Your task to perform on an android device: Go to Google maps Image 0: 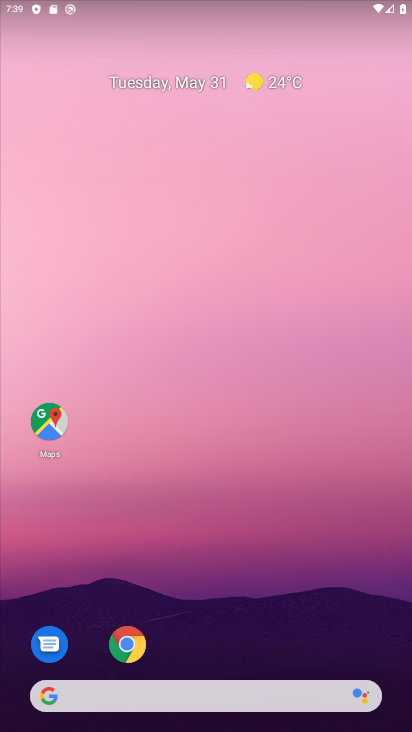
Step 0: click (40, 417)
Your task to perform on an android device: Go to Google maps Image 1: 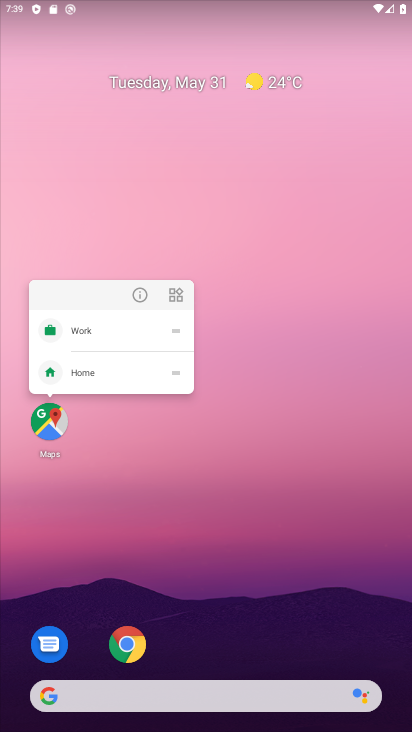
Step 1: click (50, 417)
Your task to perform on an android device: Go to Google maps Image 2: 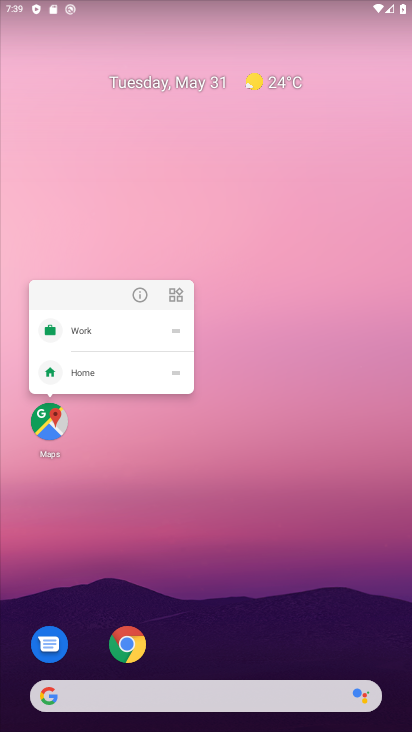
Step 2: click (48, 419)
Your task to perform on an android device: Go to Google maps Image 3: 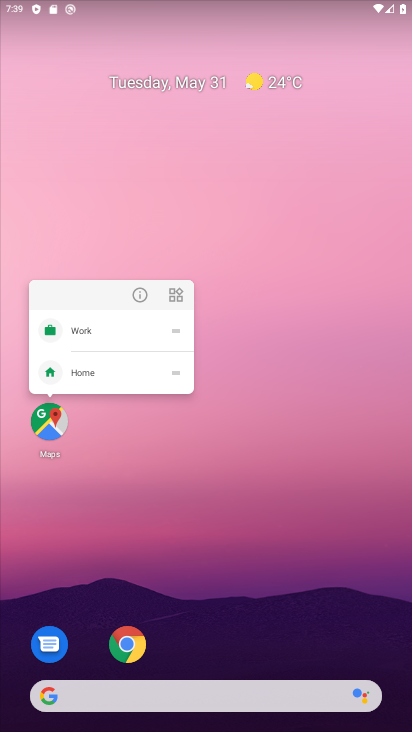
Step 3: click (39, 417)
Your task to perform on an android device: Go to Google maps Image 4: 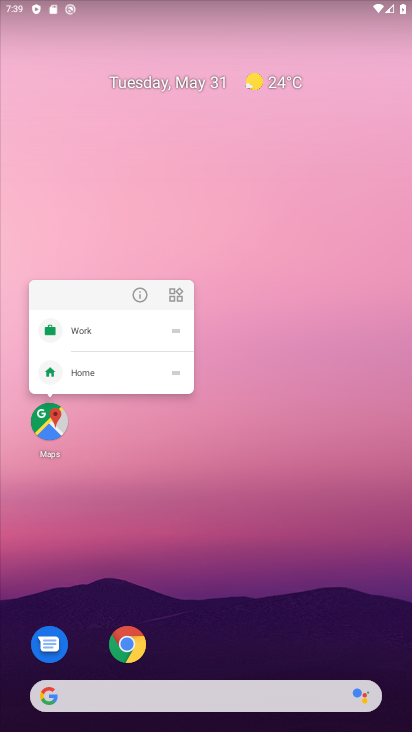
Step 4: click (50, 425)
Your task to perform on an android device: Go to Google maps Image 5: 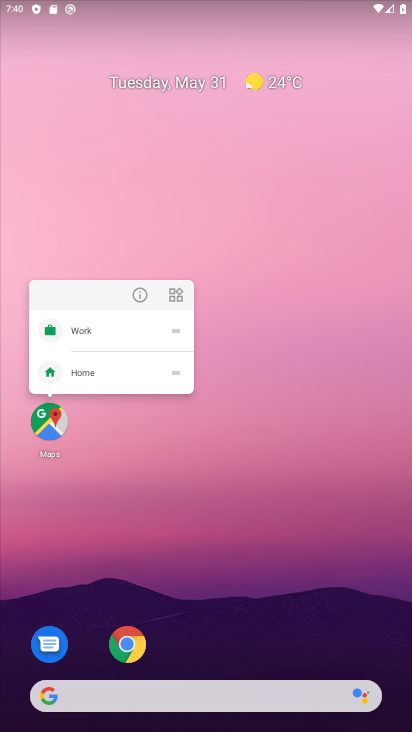
Step 5: click (36, 426)
Your task to perform on an android device: Go to Google maps Image 6: 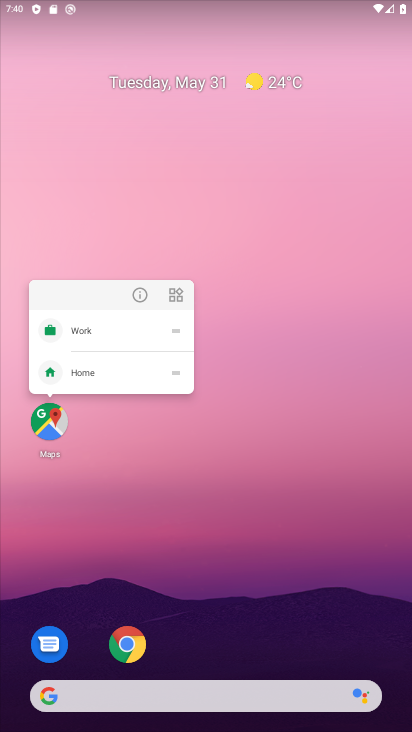
Step 6: click (146, 289)
Your task to perform on an android device: Go to Google maps Image 7: 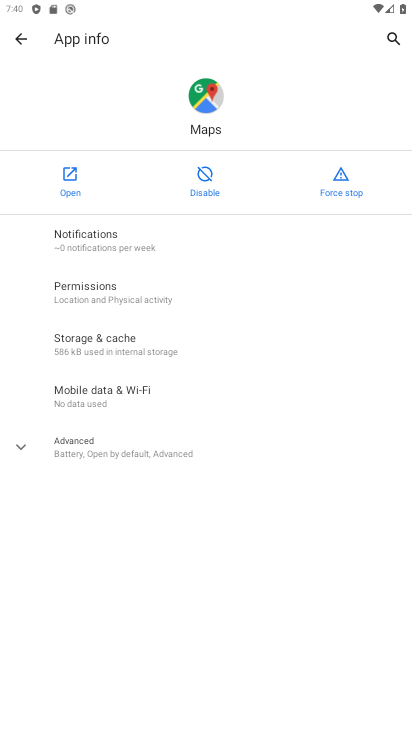
Step 7: click (78, 189)
Your task to perform on an android device: Go to Google maps Image 8: 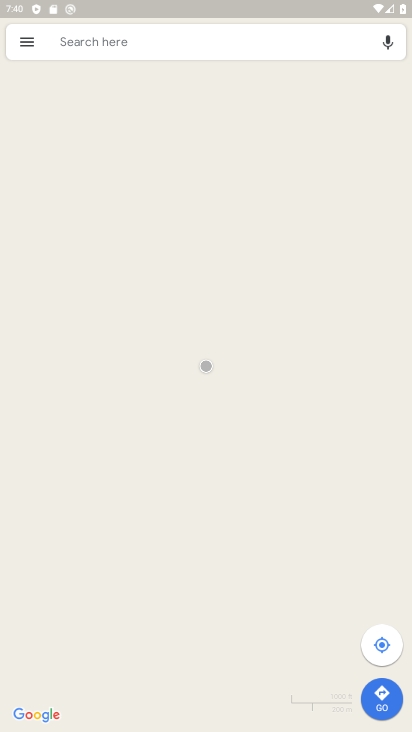
Step 8: task complete